Your task to perform on an android device: change the clock display to analog Image 0: 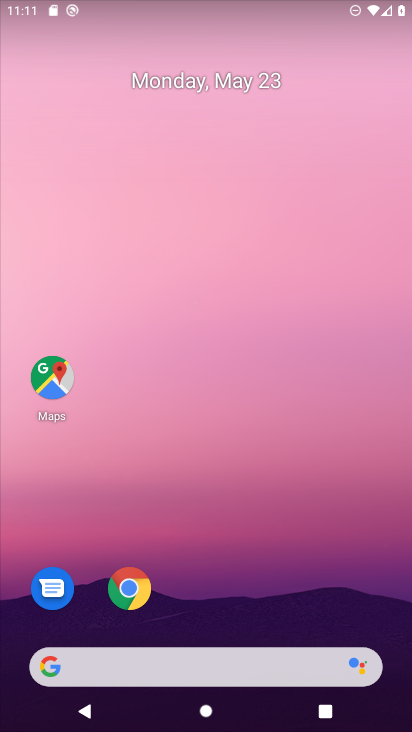
Step 0: drag from (281, 565) to (269, 173)
Your task to perform on an android device: change the clock display to analog Image 1: 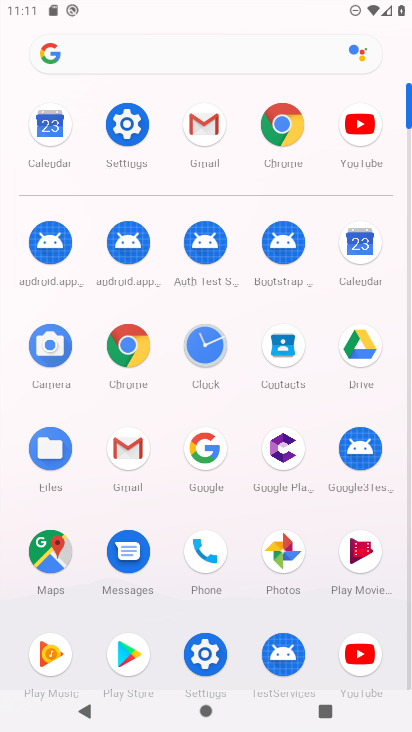
Step 1: click (213, 349)
Your task to perform on an android device: change the clock display to analog Image 2: 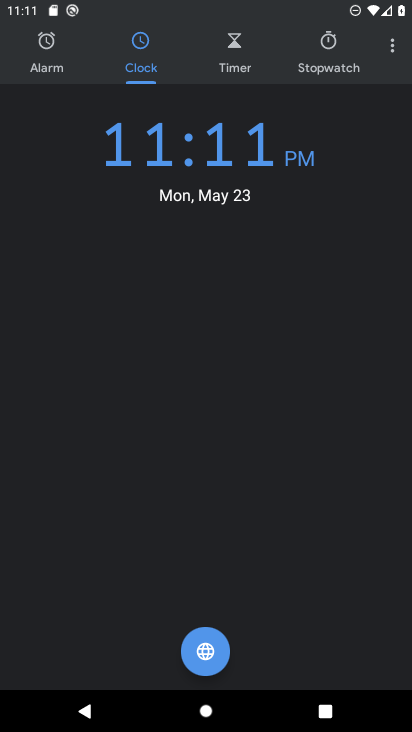
Step 2: click (389, 39)
Your task to perform on an android device: change the clock display to analog Image 3: 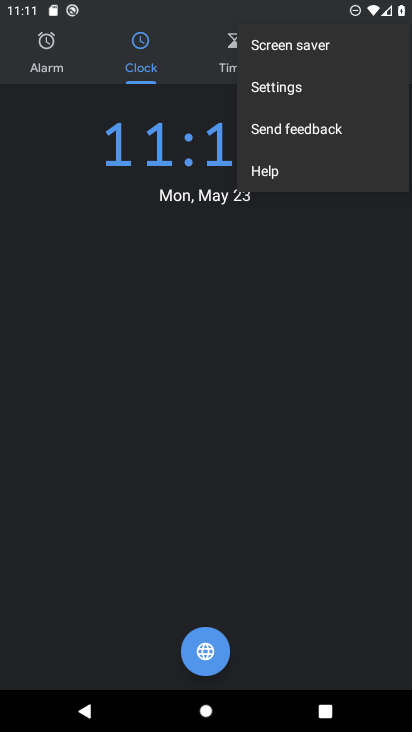
Step 3: click (296, 94)
Your task to perform on an android device: change the clock display to analog Image 4: 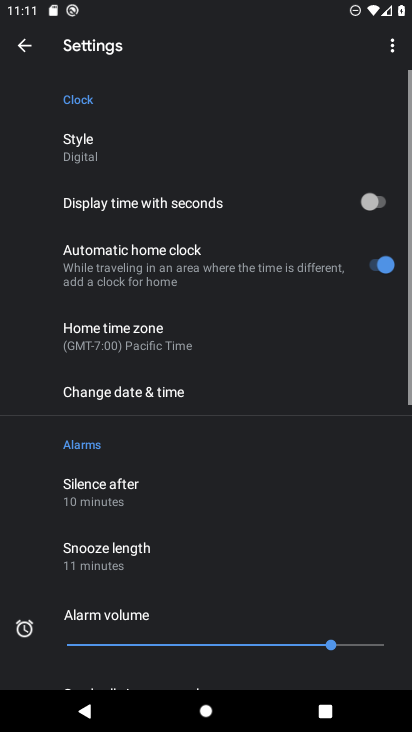
Step 4: click (105, 148)
Your task to perform on an android device: change the clock display to analog Image 5: 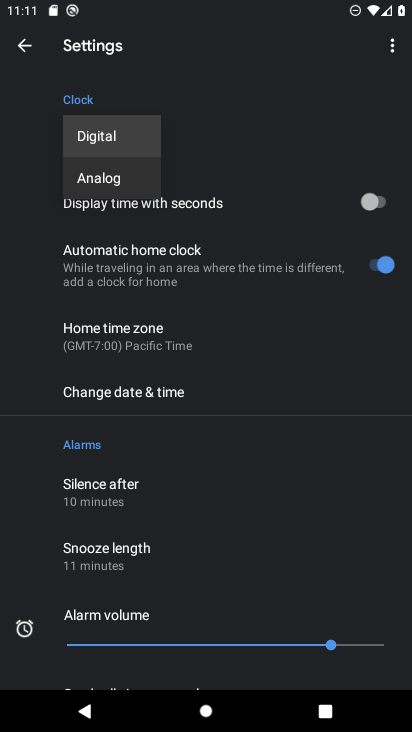
Step 5: click (133, 185)
Your task to perform on an android device: change the clock display to analog Image 6: 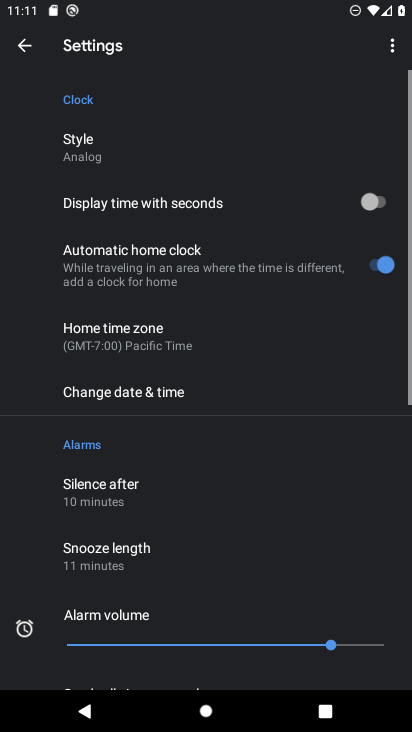
Step 6: task complete